Your task to perform on an android device: What's on the menu at Chick-fil-A? Image 0: 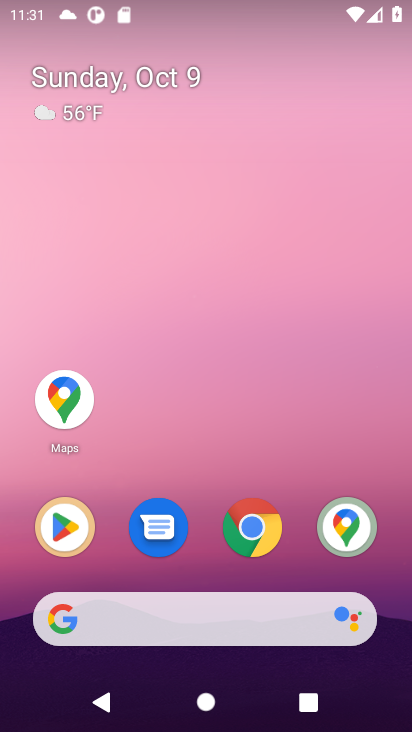
Step 0: click (254, 534)
Your task to perform on an android device: What's on the menu at Chick-fil-A? Image 1: 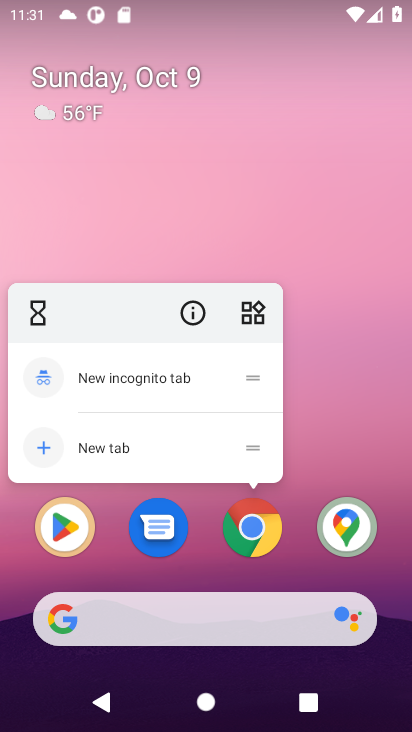
Step 1: click (262, 524)
Your task to perform on an android device: What's on the menu at Chick-fil-A? Image 2: 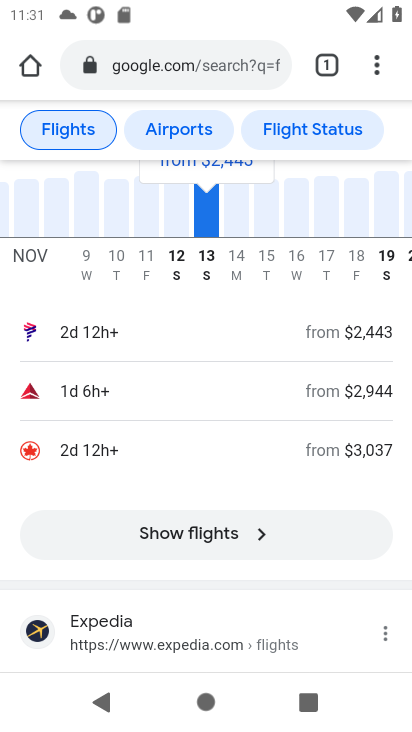
Step 2: click (195, 63)
Your task to perform on an android device: What's on the menu at Chick-fil-A? Image 3: 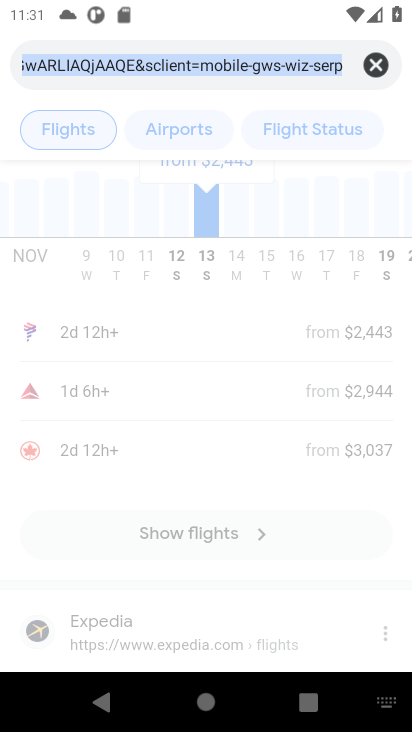
Step 3: click (361, 63)
Your task to perform on an android device: What's on the menu at Chick-fil-A? Image 4: 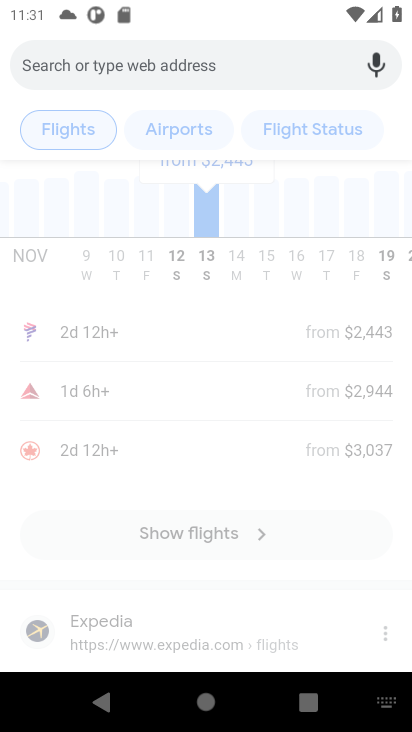
Step 4: type "What's on the menu at Chick-fil-A?"
Your task to perform on an android device: What's on the menu at Chick-fil-A? Image 5: 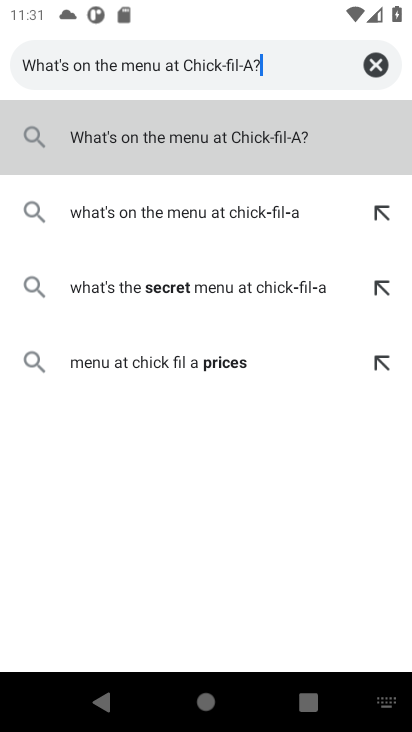
Step 5: click (183, 139)
Your task to perform on an android device: What's on the menu at Chick-fil-A? Image 6: 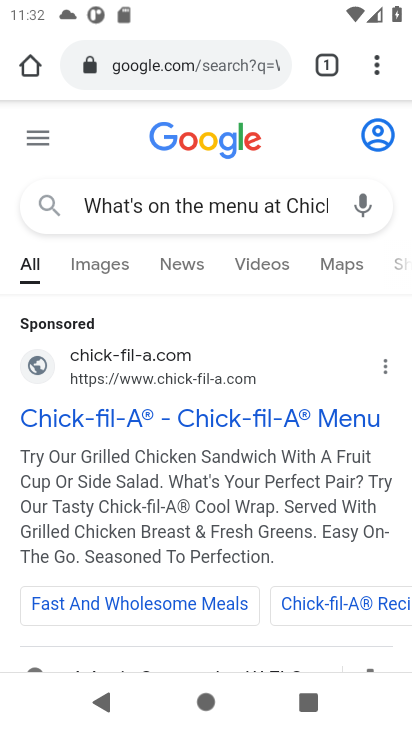
Step 6: task complete